Your task to perform on an android device: Open the Play Movies app and select the watchlist tab. Image 0: 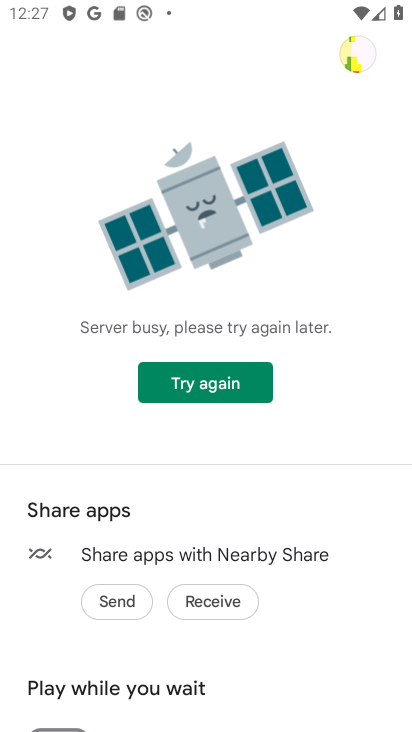
Step 0: press home button
Your task to perform on an android device: Open the Play Movies app and select the watchlist tab. Image 1: 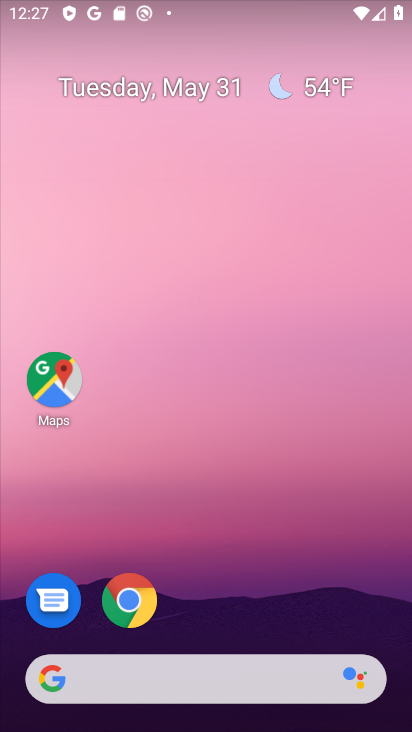
Step 1: drag from (192, 629) to (188, 4)
Your task to perform on an android device: Open the Play Movies app and select the watchlist tab. Image 2: 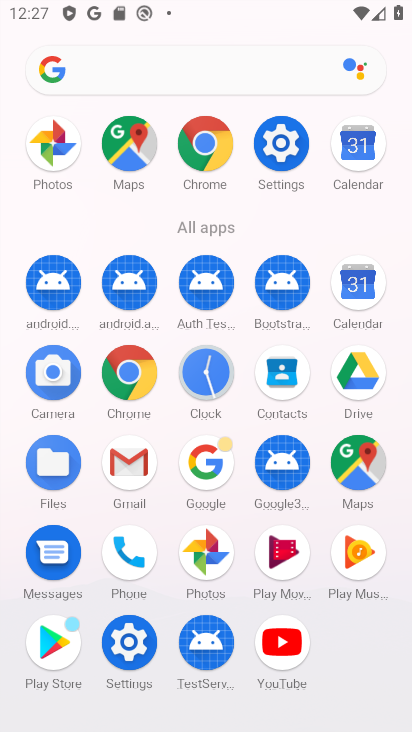
Step 2: click (278, 552)
Your task to perform on an android device: Open the Play Movies app and select the watchlist tab. Image 3: 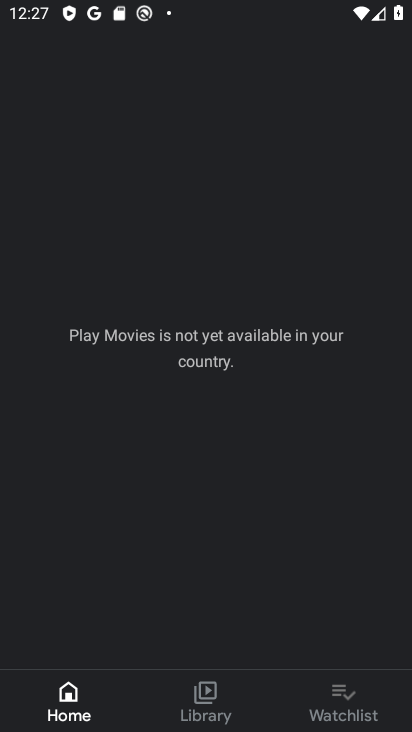
Step 3: click (334, 696)
Your task to perform on an android device: Open the Play Movies app and select the watchlist tab. Image 4: 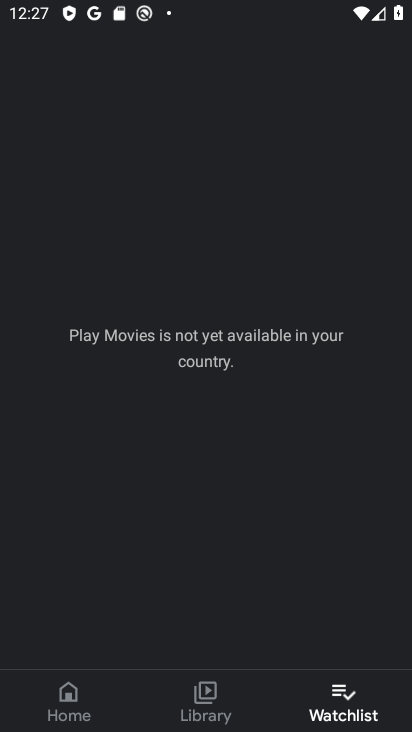
Step 4: task complete